Your task to perform on an android device: toggle translation in the chrome app Image 0: 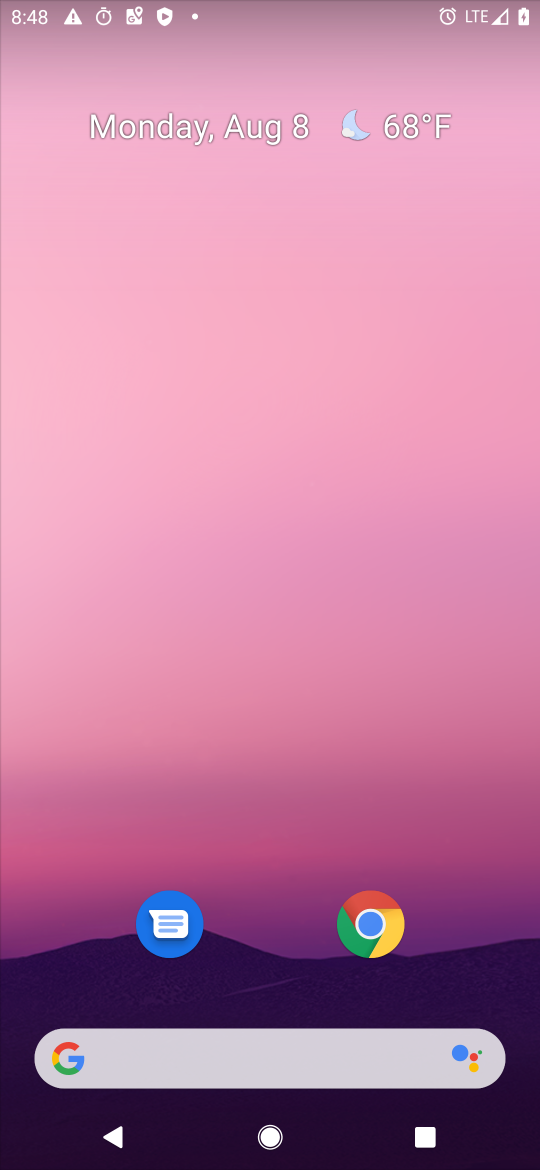
Step 0: drag from (278, 988) to (182, 453)
Your task to perform on an android device: toggle translation in the chrome app Image 1: 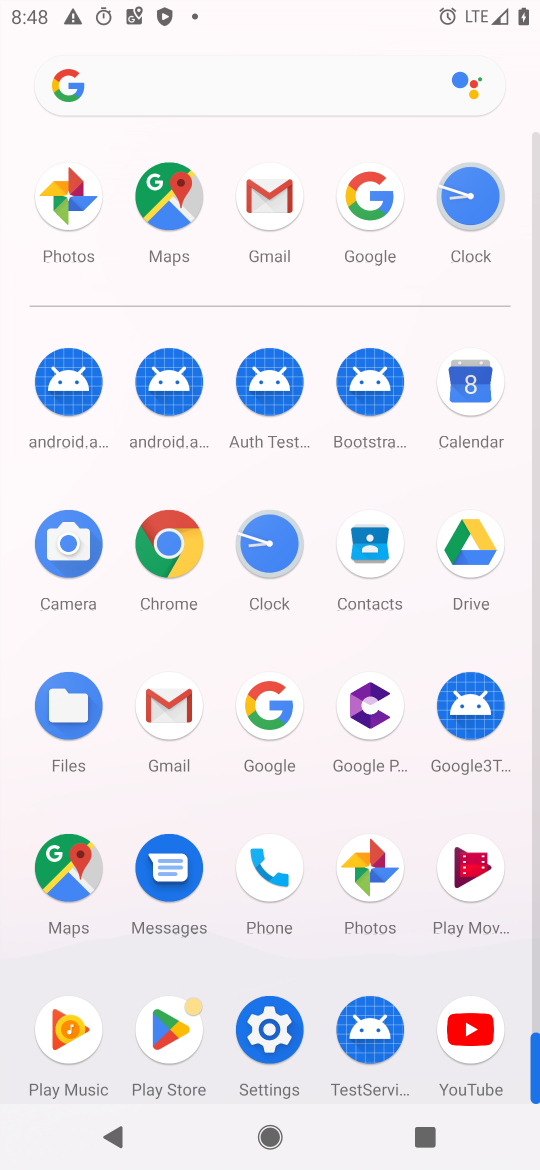
Step 1: click (152, 546)
Your task to perform on an android device: toggle translation in the chrome app Image 2: 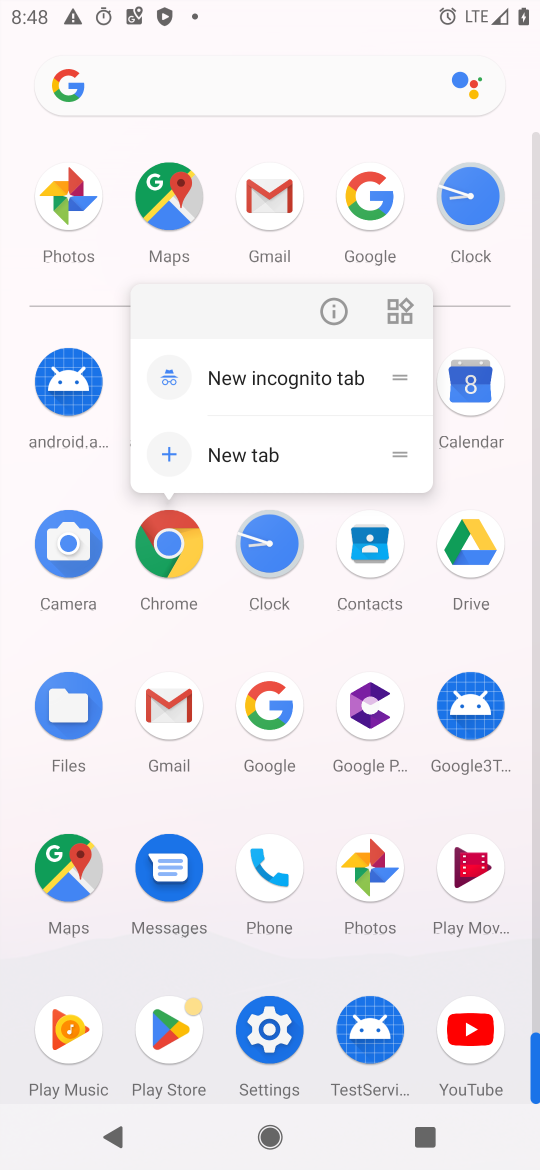
Step 2: click (157, 541)
Your task to perform on an android device: toggle translation in the chrome app Image 3: 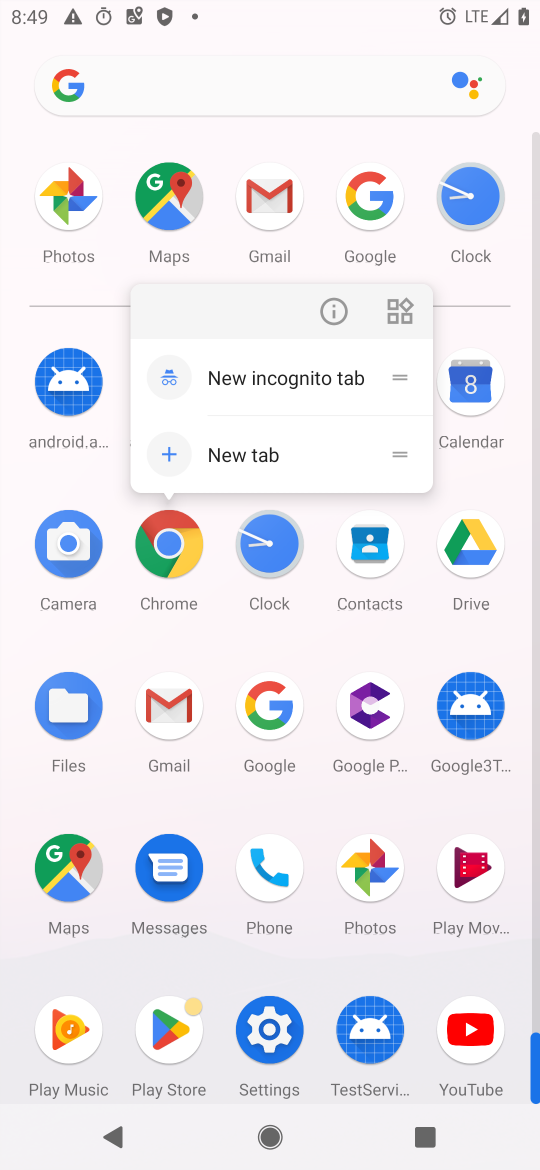
Step 3: click (319, 316)
Your task to perform on an android device: toggle translation in the chrome app Image 4: 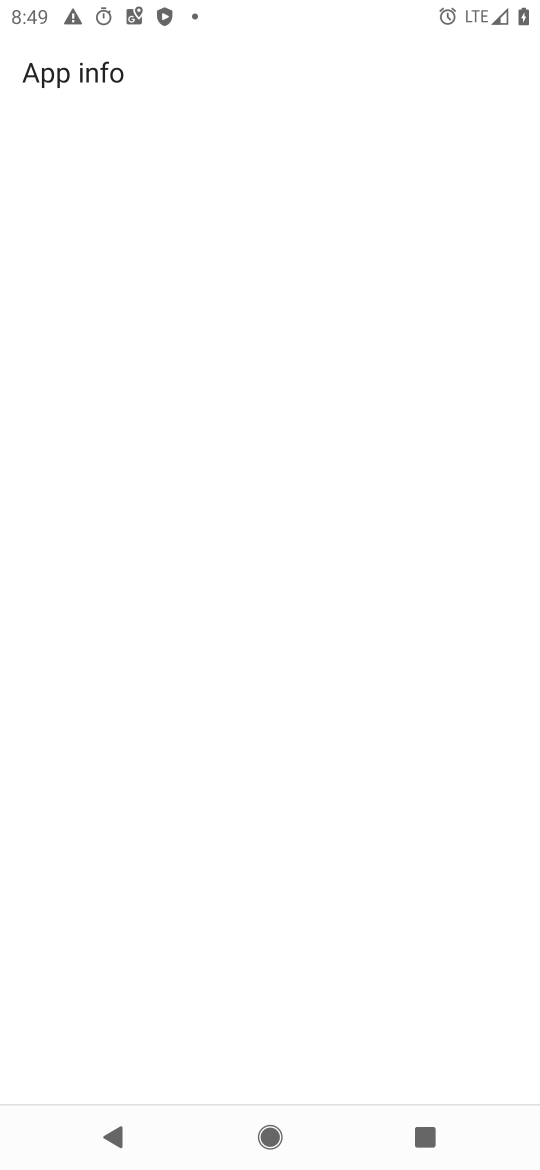
Step 4: click (316, 312)
Your task to perform on an android device: toggle translation in the chrome app Image 5: 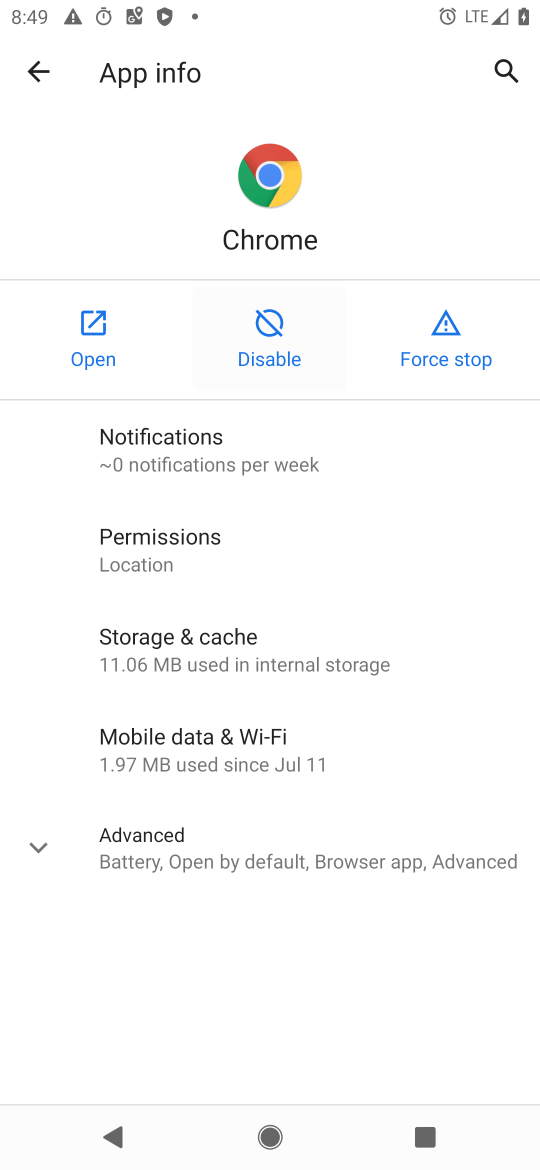
Step 5: click (316, 312)
Your task to perform on an android device: toggle translation in the chrome app Image 6: 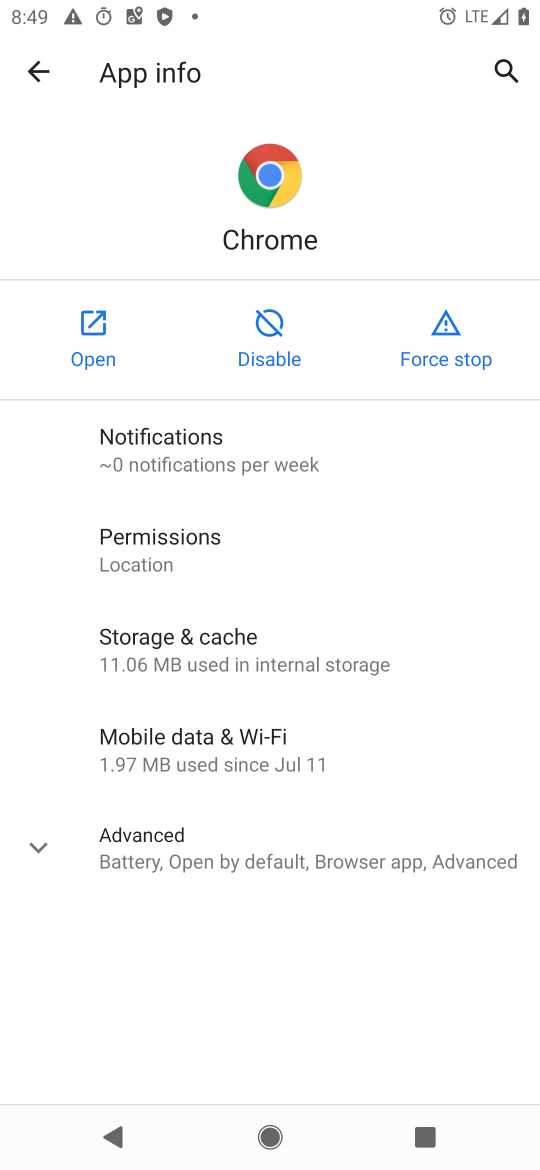
Step 6: click (79, 338)
Your task to perform on an android device: toggle translation in the chrome app Image 7: 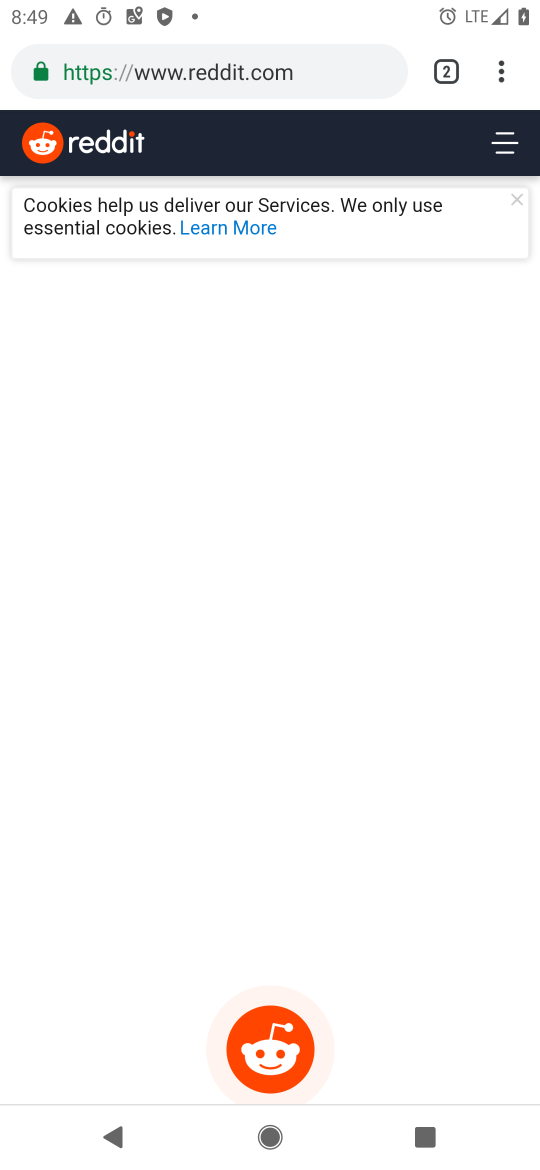
Step 7: drag from (496, 65) to (374, 887)
Your task to perform on an android device: toggle translation in the chrome app Image 8: 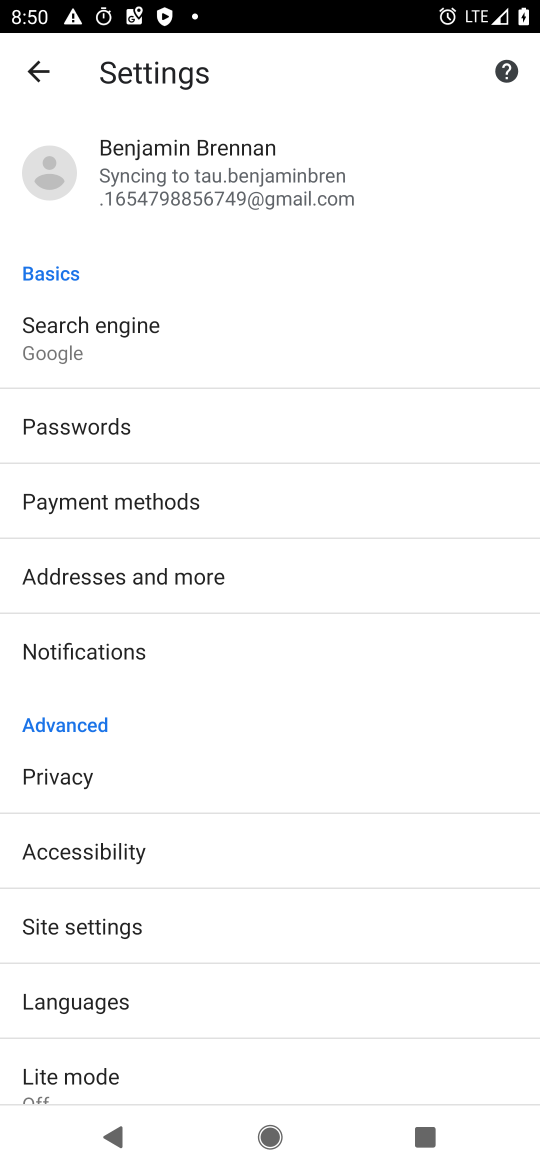
Step 8: click (99, 984)
Your task to perform on an android device: toggle translation in the chrome app Image 9: 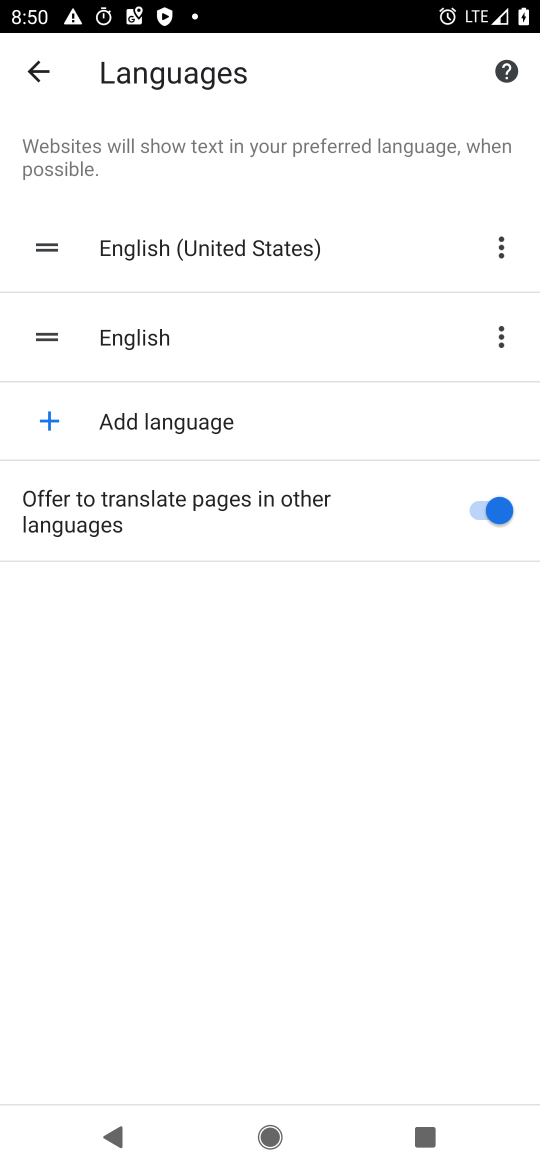
Step 9: click (493, 520)
Your task to perform on an android device: toggle translation in the chrome app Image 10: 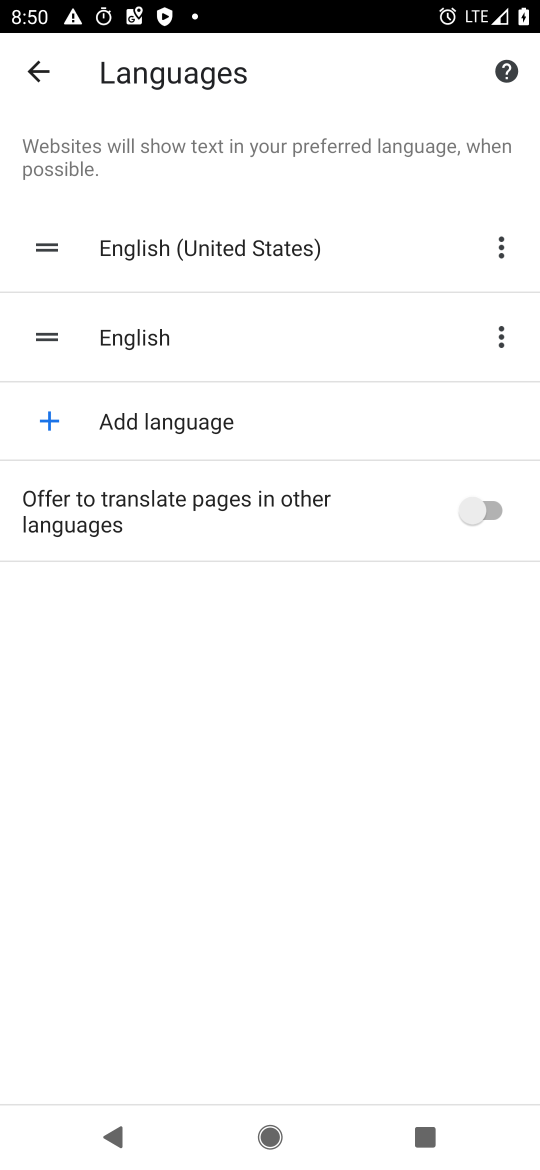
Step 10: task complete